Your task to perform on an android device: What is the news today? Image 0: 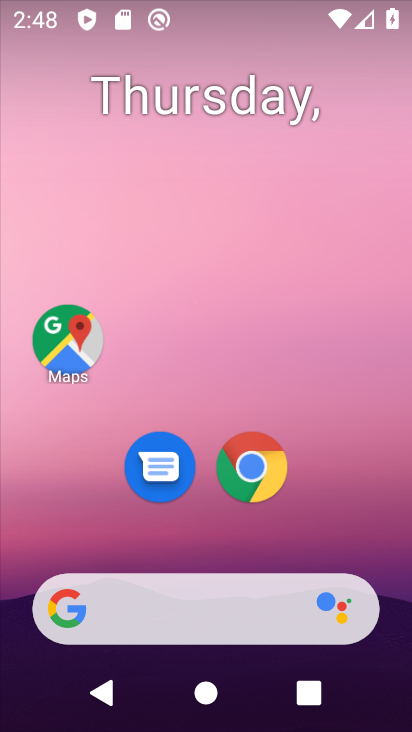
Step 0: drag from (15, 292) to (335, 269)
Your task to perform on an android device: What is the news today? Image 1: 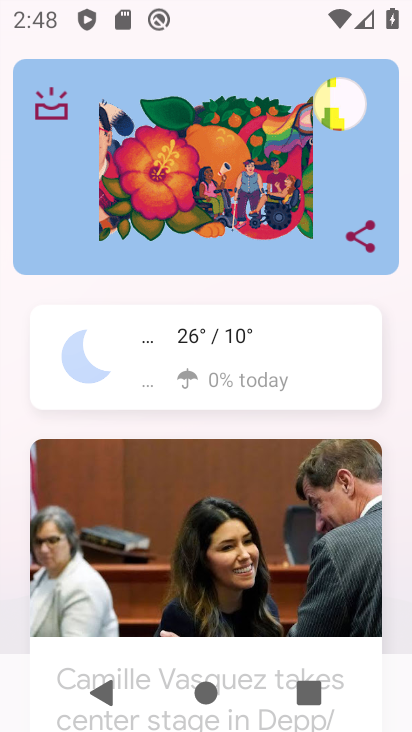
Step 1: task complete